Your task to perform on an android device: Open Youtube and go to the subscriptions tab Image 0: 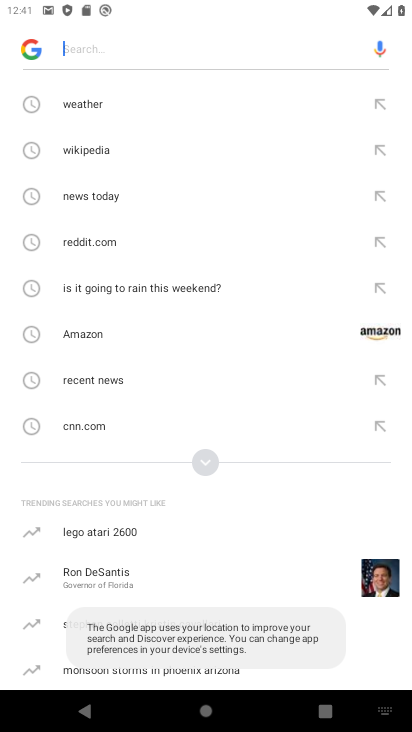
Step 0: press home button
Your task to perform on an android device: Open Youtube and go to the subscriptions tab Image 1: 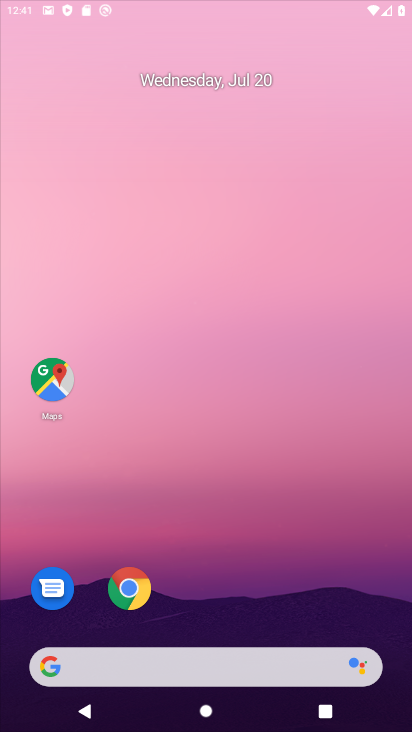
Step 1: drag from (305, 615) to (185, 99)
Your task to perform on an android device: Open Youtube and go to the subscriptions tab Image 2: 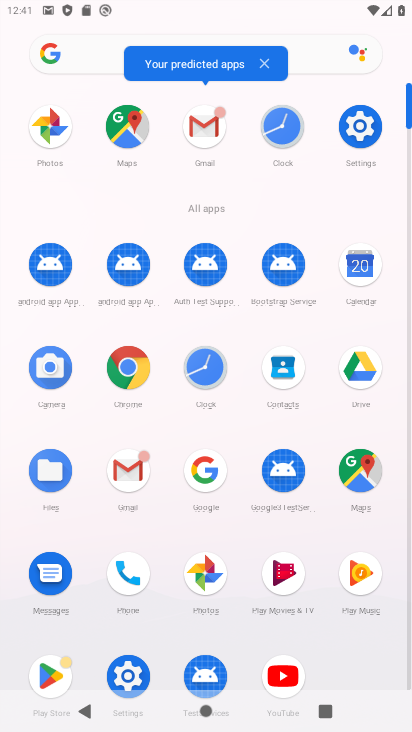
Step 2: click (290, 657)
Your task to perform on an android device: Open Youtube and go to the subscriptions tab Image 3: 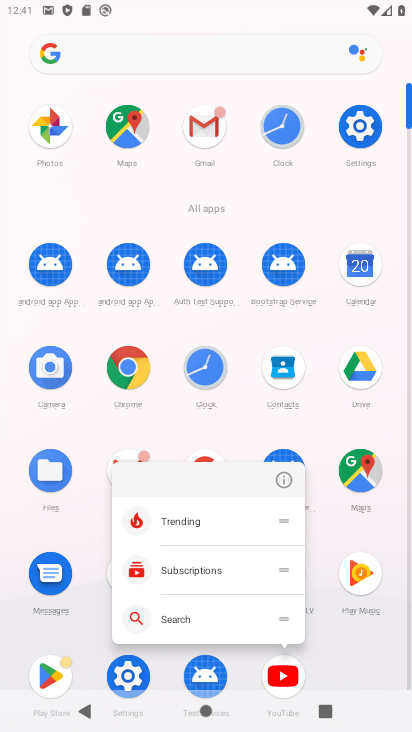
Step 3: click (277, 661)
Your task to perform on an android device: Open Youtube and go to the subscriptions tab Image 4: 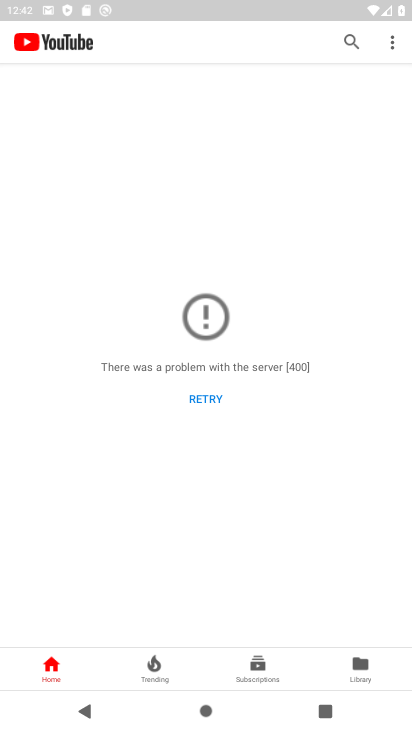
Step 4: click (258, 672)
Your task to perform on an android device: Open Youtube and go to the subscriptions tab Image 5: 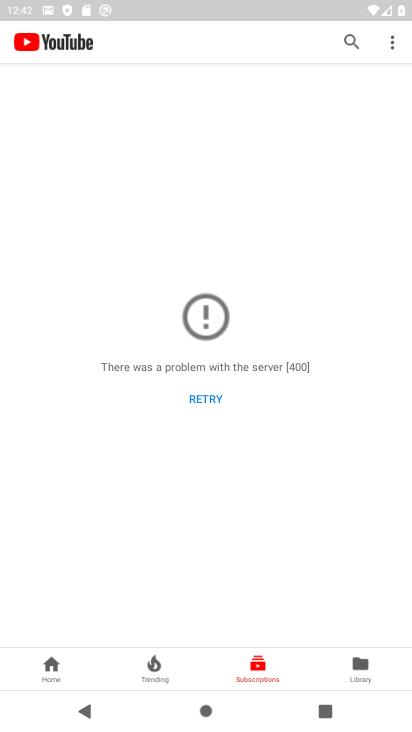
Step 5: task complete